Your task to perform on an android device: Open Youtube and go to "Your channel" Image 0: 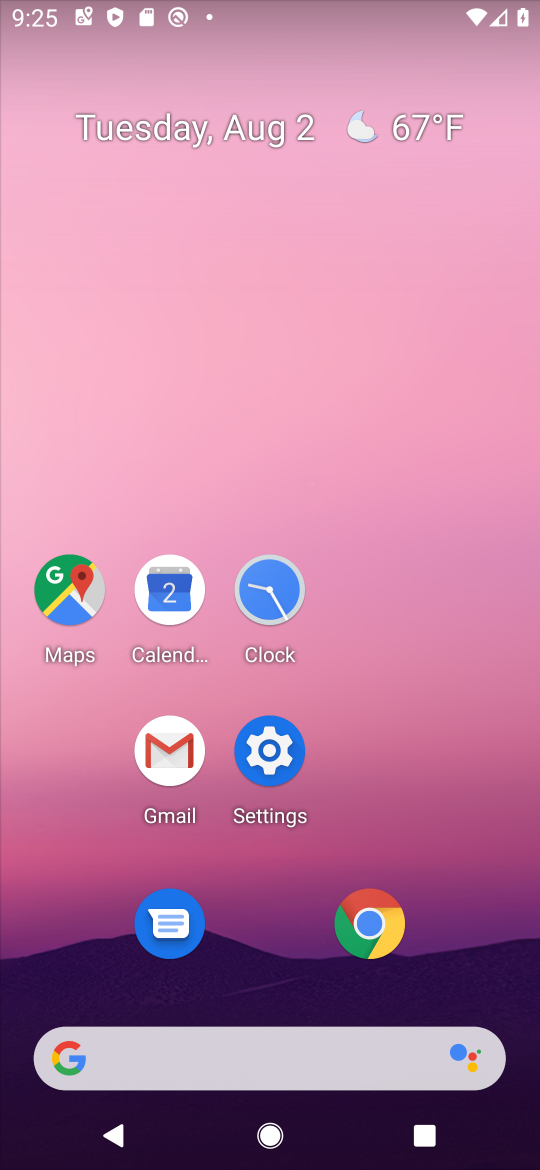
Step 0: drag from (529, 954) to (472, 303)
Your task to perform on an android device: Open Youtube and go to "Your channel" Image 1: 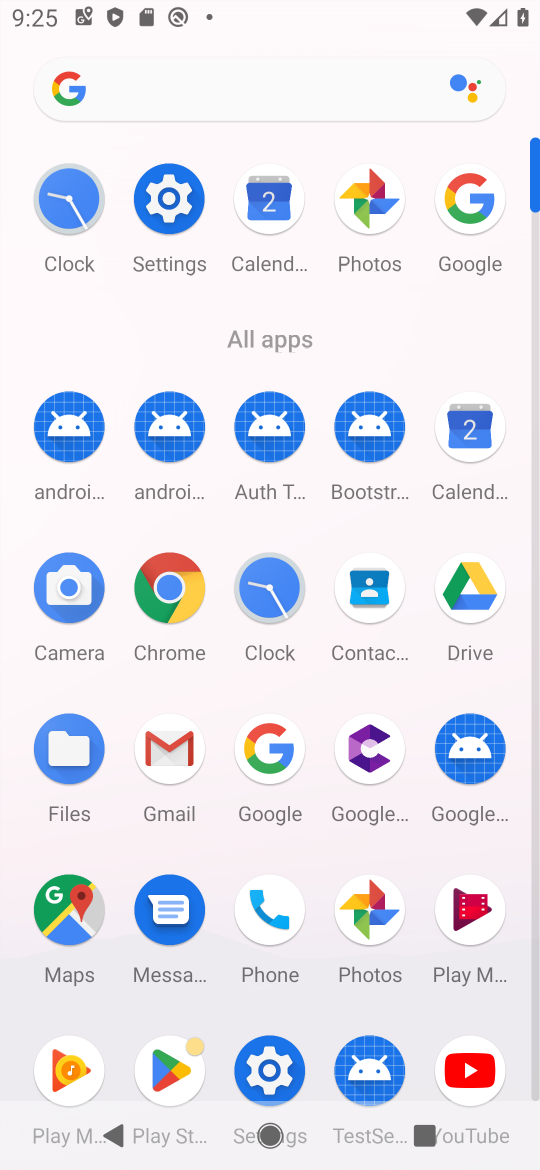
Step 1: click (480, 1047)
Your task to perform on an android device: Open Youtube and go to "Your channel" Image 2: 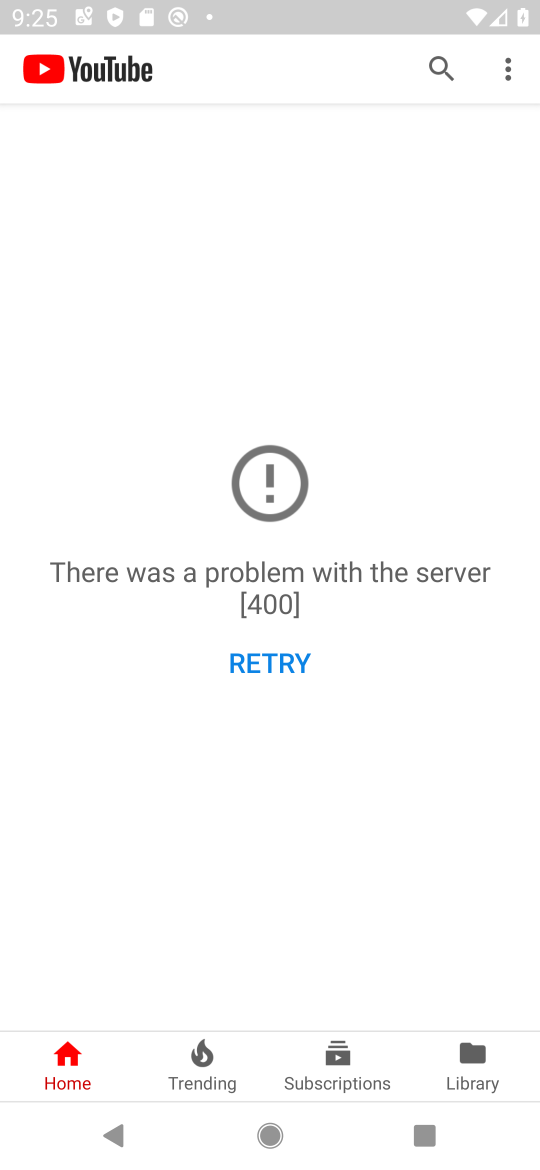
Step 2: task complete